Your task to perform on an android device: turn on location history Image 0: 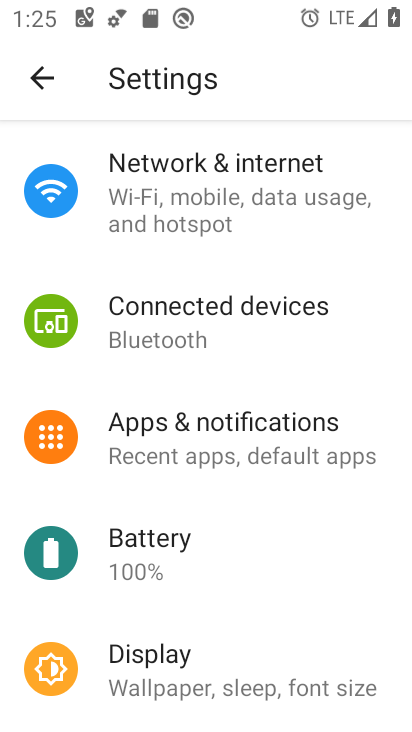
Step 0: drag from (340, 567) to (347, 466)
Your task to perform on an android device: turn on location history Image 1: 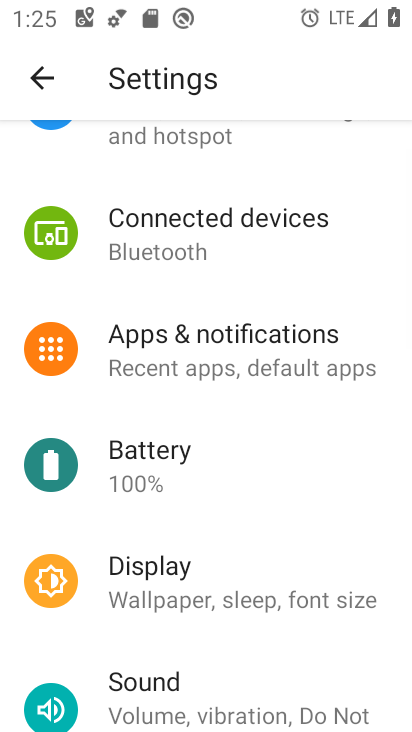
Step 1: drag from (332, 632) to (341, 457)
Your task to perform on an android device: turn on location history Image 2: 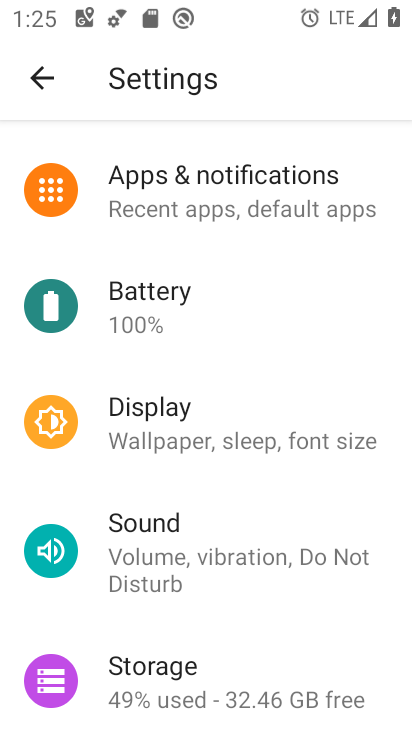
Step 2: drag from (332, 638) to (332, 475)
Your task to perform on an android device: turn on location history Image 3: 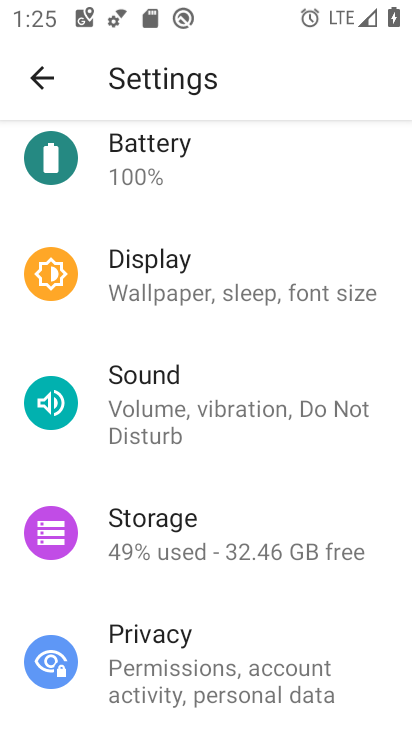
Step 3: drag from (348, 639) to (351, 494)
Your task to perform on an android device: turn on location history Image 4: 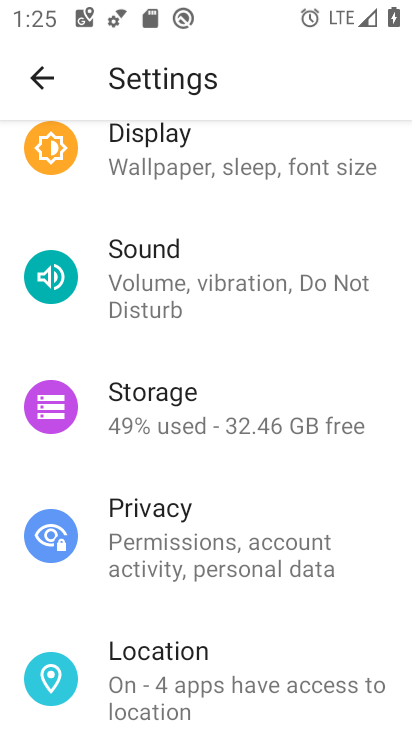
Step 4: drag from (375, 582) to (380, 433)
Your task to perform on an android device: turn on location history Image 5: 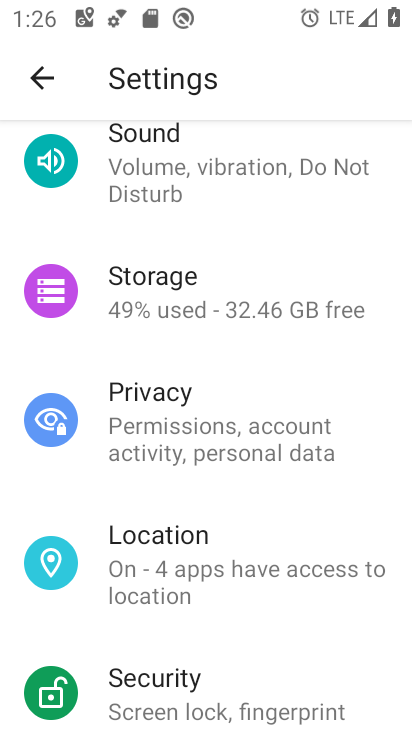
Step 5: drag from (356, 624) to (361, 462)
Your task to perform on an android device: turn on location history Image 6: 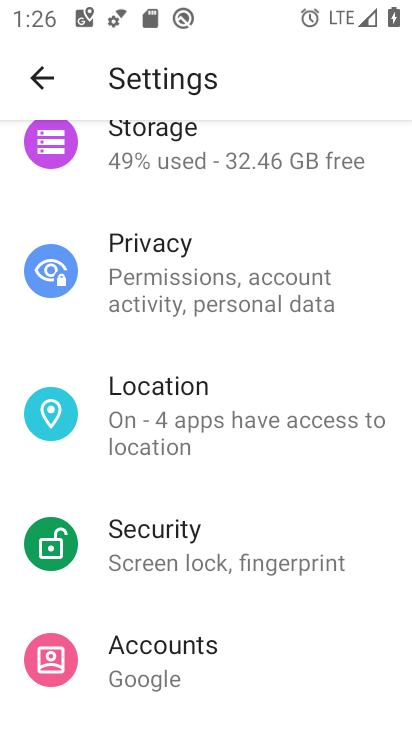
Step 6: drag from (344, 622) to (345, 484)
Your task to perform on an android device: turn on location history Image 7: 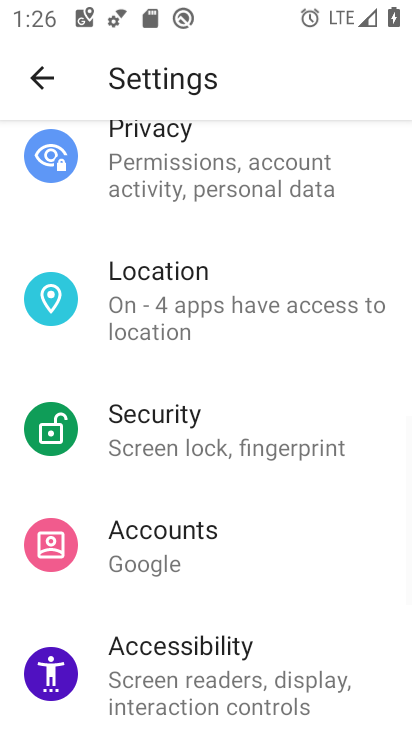
Step 7: drag from (336, 626) to (336, 425)
Your task to perform on an android device: turn on location history Image 8: 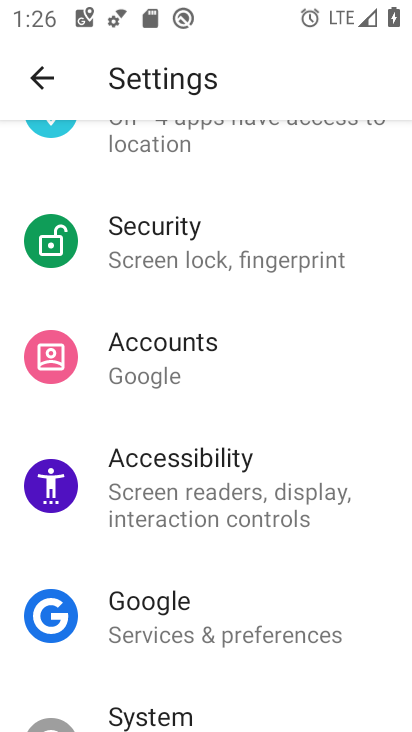
Step 8: drag from (344, 688) to (358, 424)
Your task to perform on an android device: turn on location history Image 9: 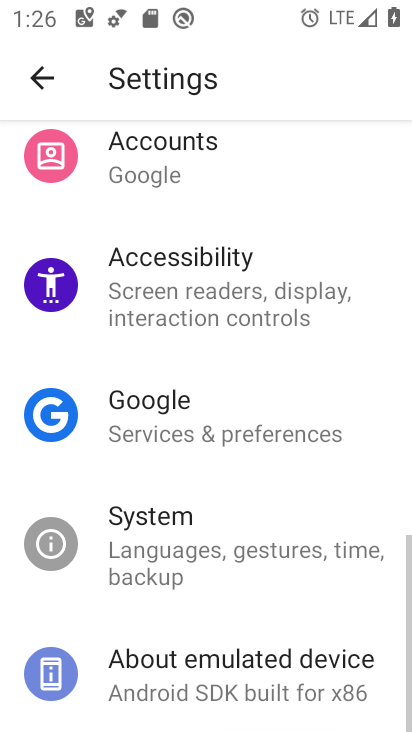
Step 9: drag from (368, 369) to (372, 492)
Your task to perform on an android device: turn on location history Image 10: 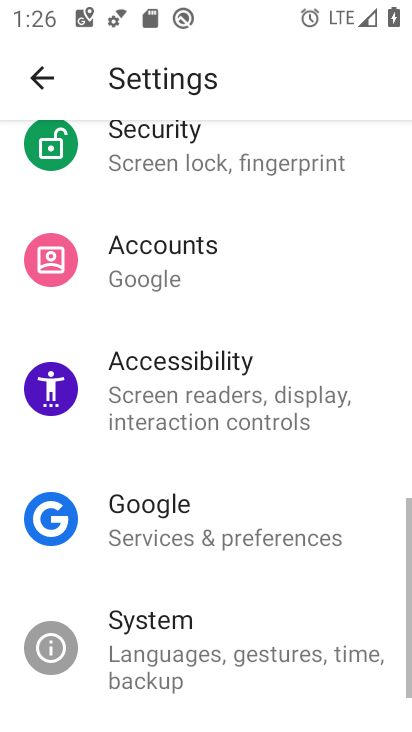
Step 10: drag from (363, 323) to (362, 472)
Your task to perform on an android device: turn on location history Image 11: 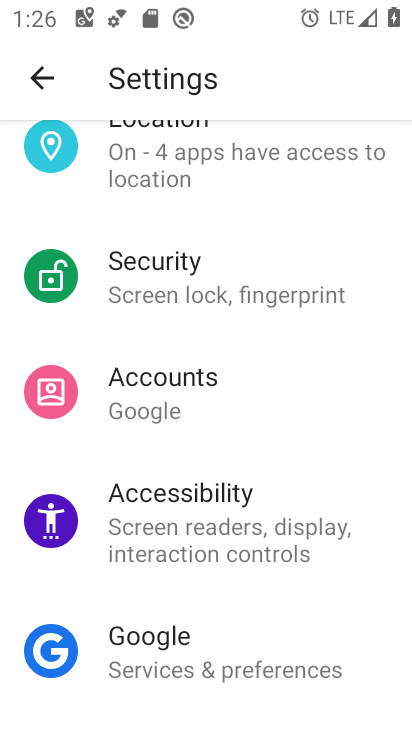
Step 11: drag from (369, 323) to (362, 498)
Your task to perform on an android device: turn on location history Image 12: 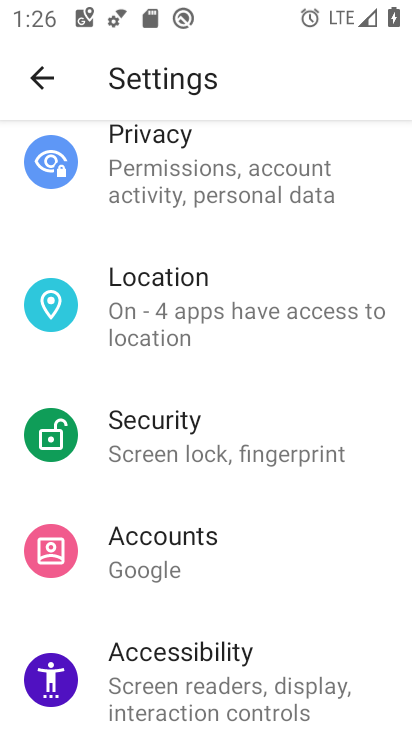
Step 12: drag from (362, 358) to (360, 495)
Your task to perform on an android device: turn on location history Image 13: 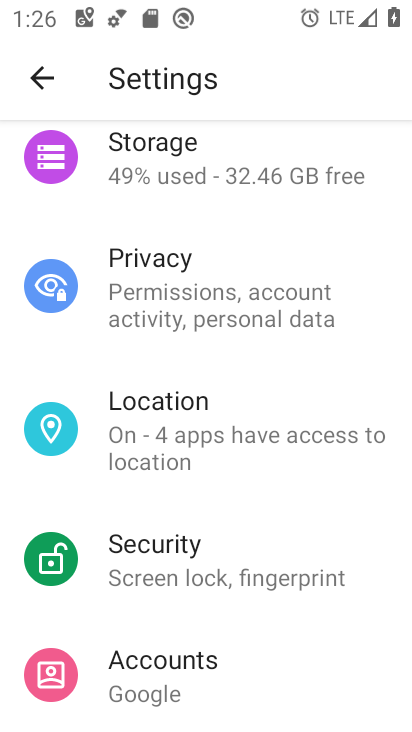
Step 13: click (284, 446)
Your task to perform on an android device: turn on location history Image 14: 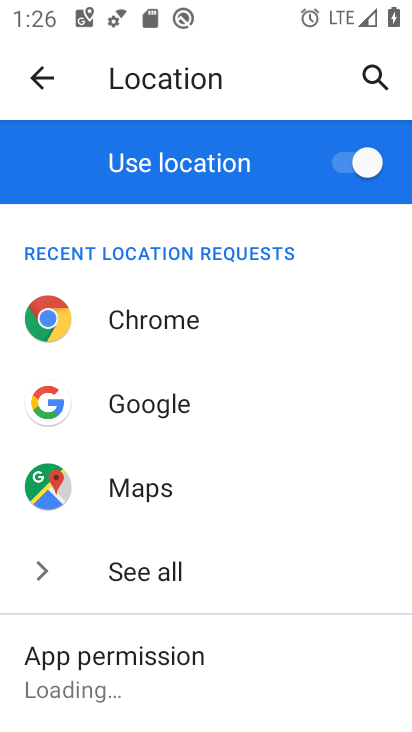
Step 14: drag from (355, 578) to (347, 434)
Your task to perform on an android device: turn on location history Image 15: 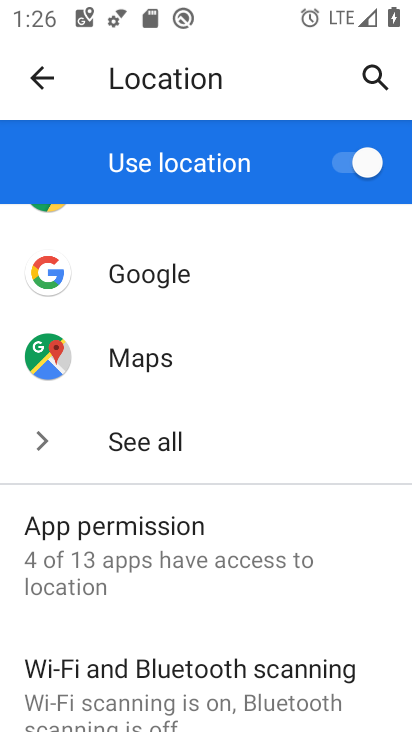
Step 15: drag from (345, 578) to (350, 433)
Your task to perform on an android device: turn on location history Image 16: 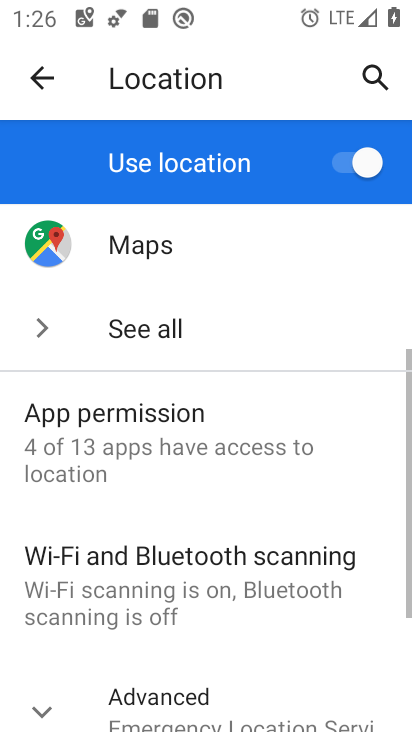
Step 16: drag from (353, 636) to (356, 477)
Your task to perform on an android device: turn on location history Image 17: 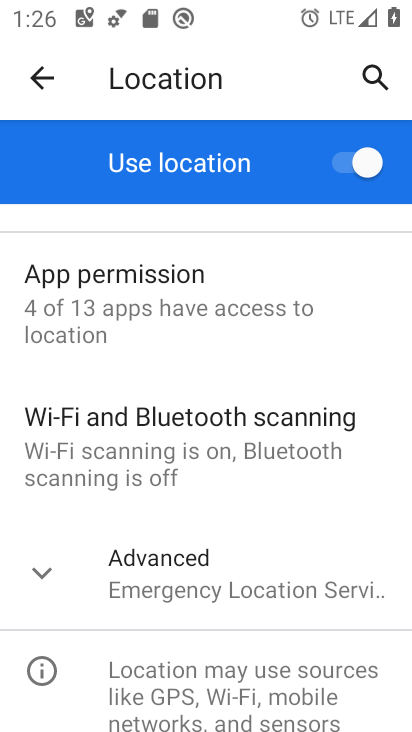
Step 17: click (336, 588)
Your task to perform on an android device: turn on location history Image 18: 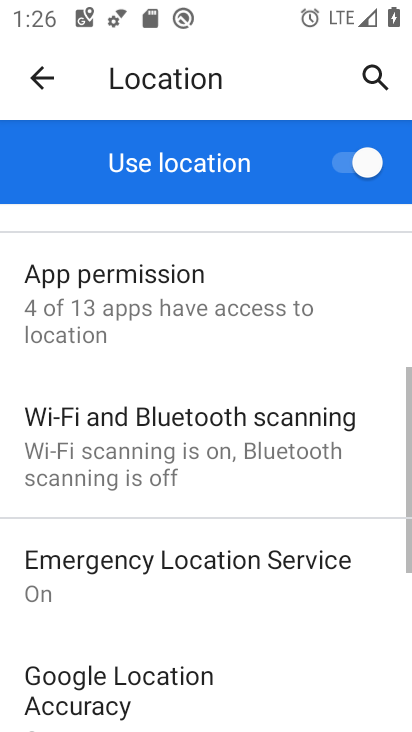
Step 18: drag from (339, 627) to (340, 516)
Your task to perform on an android device: turn on location history Image 19: 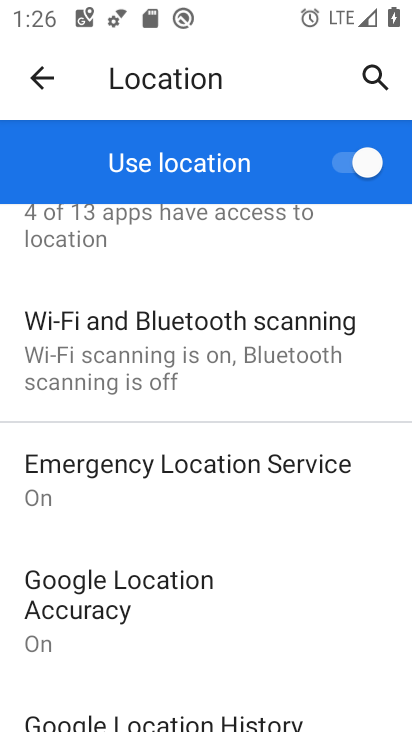
Step 19: drag from (341, 642) to (343, 506)
Your task to perform on an android device: turn on location history Image 20: 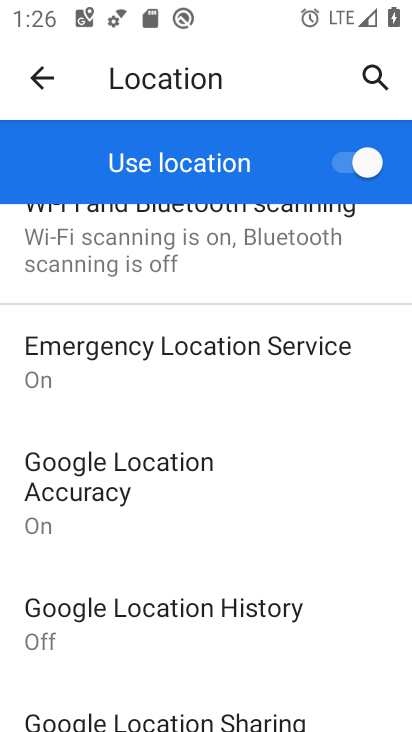
Step 20: click (323, 617)
Your task to perform on an android device: turn on location history Image 21: 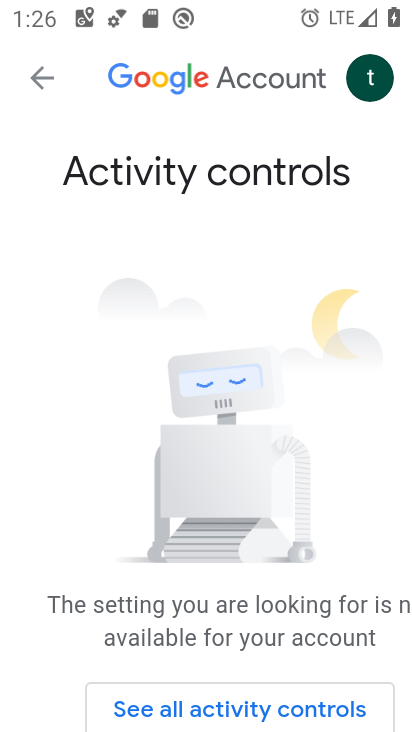
Step 21: click (352, 704)
Your task to perform on an android device: turn on location history Image 22: 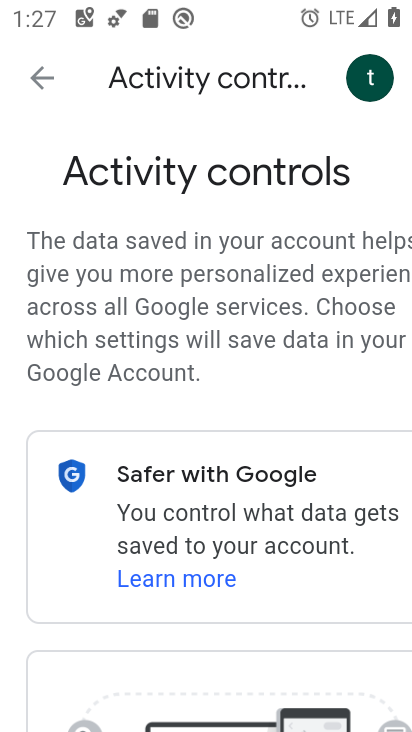
Step 22: drag from (288, 617) to (295, 411)
Your task to perform on an android device: turn on location history Image 23: 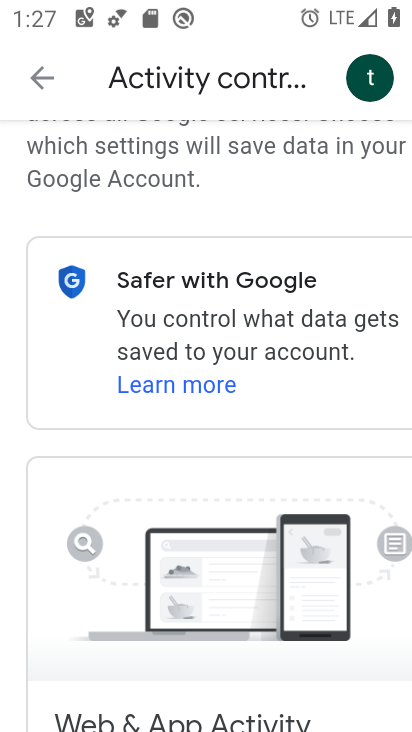
Step 23: drag from (285, 622) to (282, 476)
Your task to perform on an android device: turn on location history Image 24: 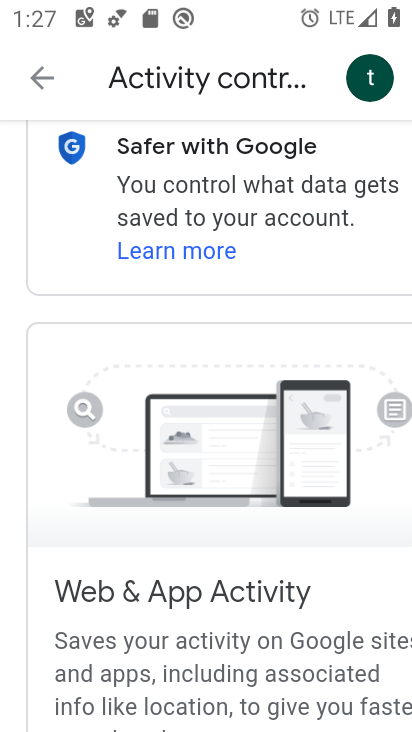
Step 24: drag from (280, 697) to (278, 545)
Your task to perform on an android device: turn on location history Image 25: 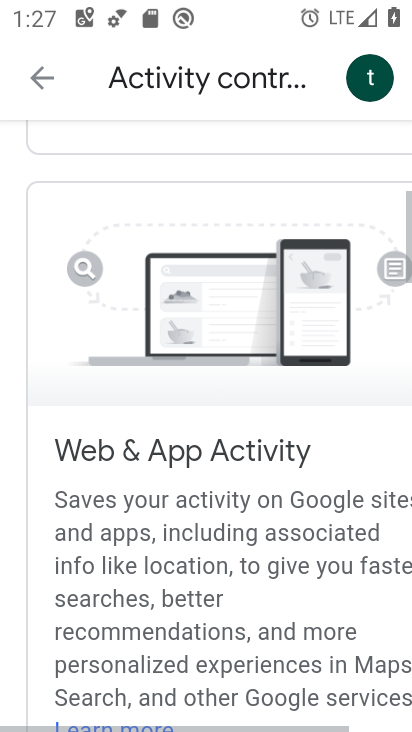
Step 25: drag from (284, 646) to (286, 451)
Your task to perform on an android device: turn on location history Image 26: 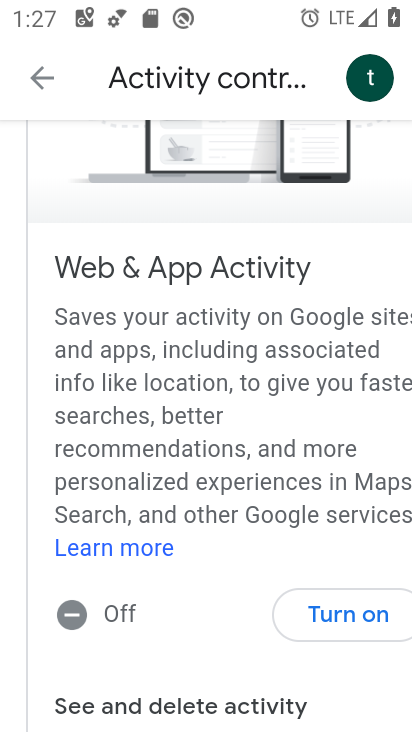
Step 26: click (344, 606)
Your task to perform on an android device: turn on location history Image 27: 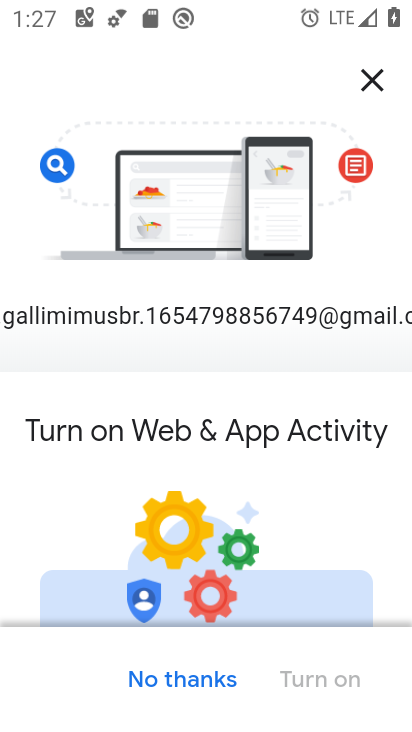
Step 27: drag from (344, 595) to (367, 437)
Your task to perform on an android device: turn on location history Image 28: 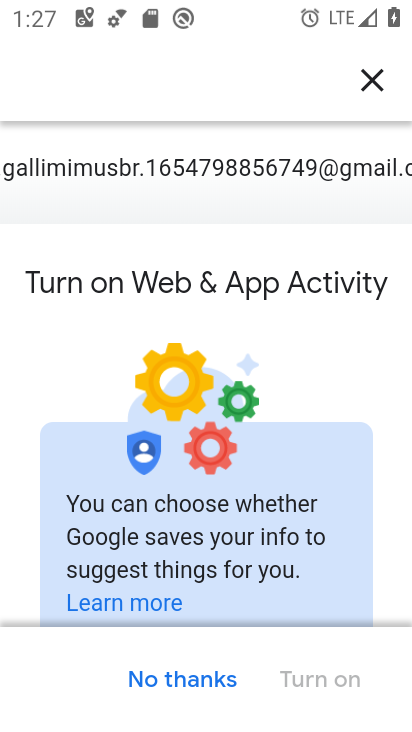
Step 28: drag from (348, 587) to (340, 388)
Your task to perform on an android device: turn on location history Image 29: 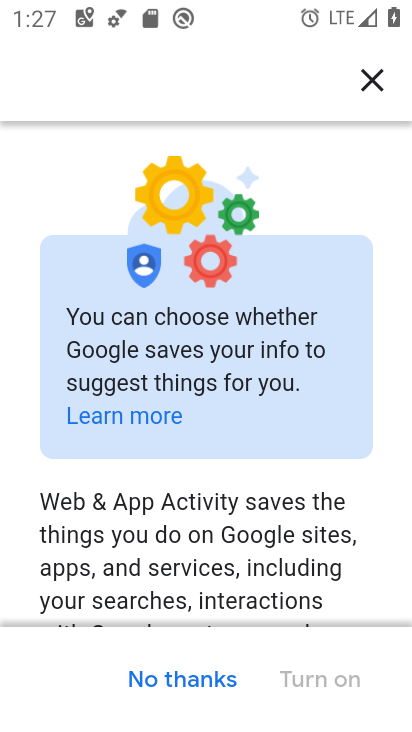
Step 29: drag from (348, 570) to (357, 403)
Your task to perform on an android device: turn on location history Image 30: 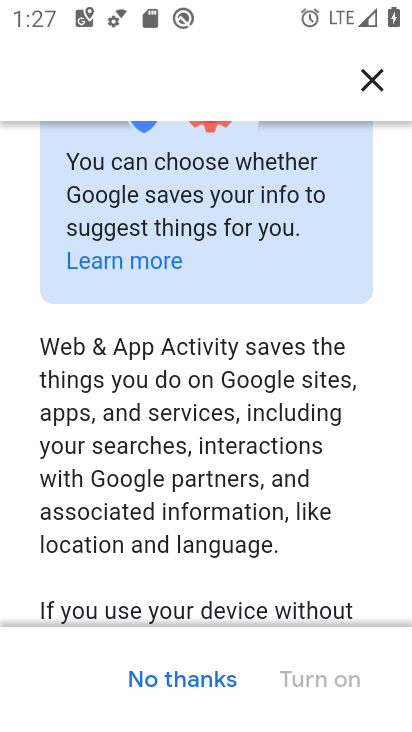
Step 30: drag from (384, 556) to (356, 377)
Your task to perform on an android device: turn on location history Image 31: 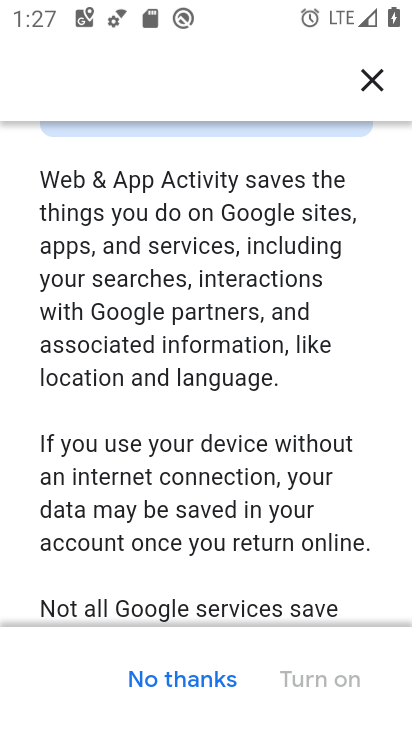
Step 31: drag from (386, 579) to (356, 414)
Your task to perform on an android device: turn on location history Image 32: 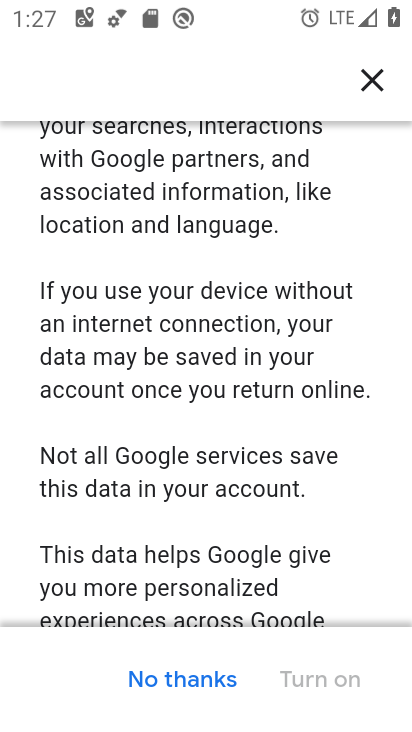
Step 32: drag from (344, 590) to (349, 353)
Your task to perform on an android device: turn on location history Image 33: 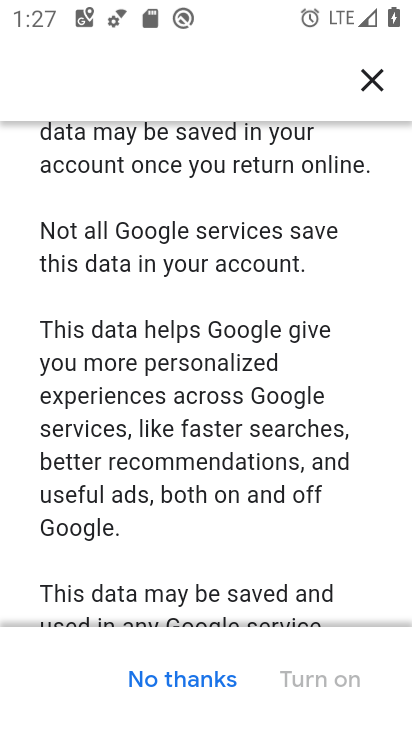
Step 33: drag from (368, 531) to (368, 317)
Your task to perform on an android device: turn on location history Image 34: 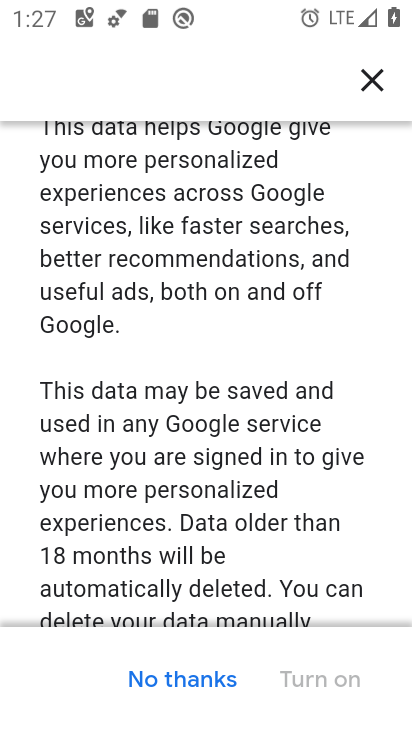
Step 34: drag from (358, 535) to (387, 263)
Your task to perform on an android device: turn on location history Image 35: 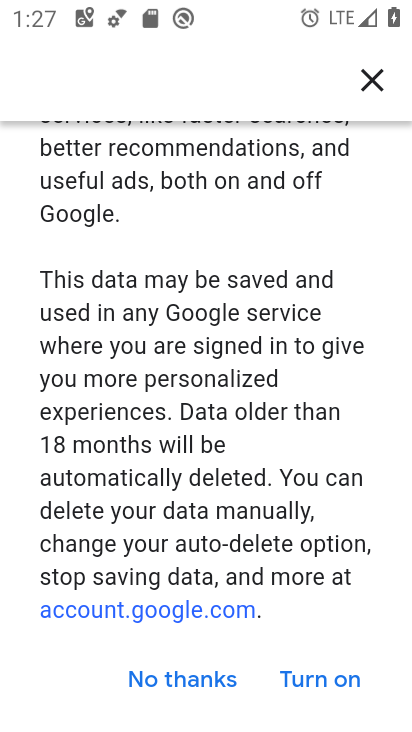
Step 35: click (347, 678)
Your task to perform on an android device: turn on location history Image 36: 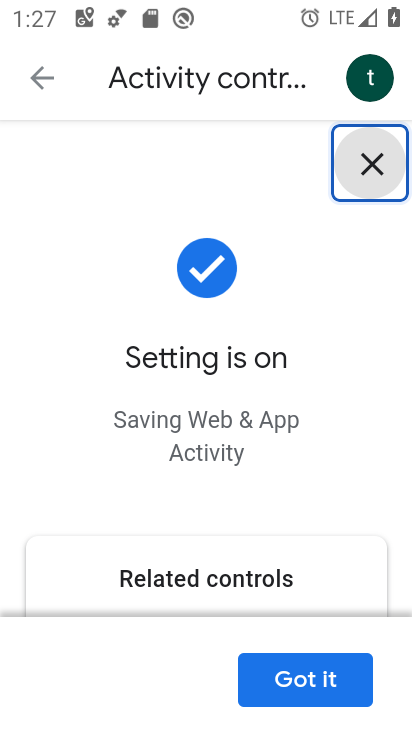
Step 36: task complete